Your task to perform on an android device: What's the weather? Image 0: 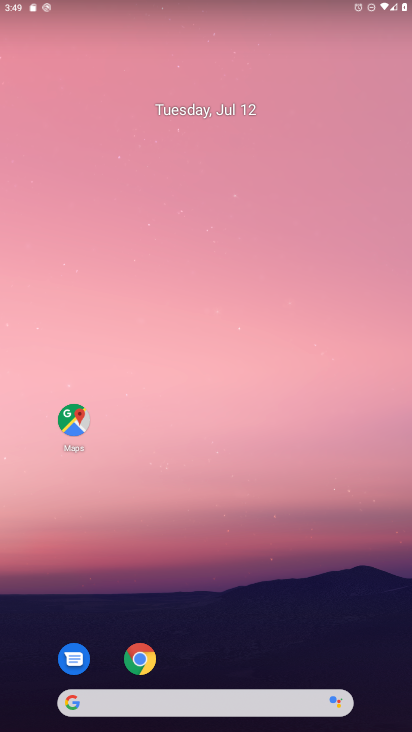
Step 0: click (185, 705)
Your task to perform on an android device: What's the weather? Image 1: 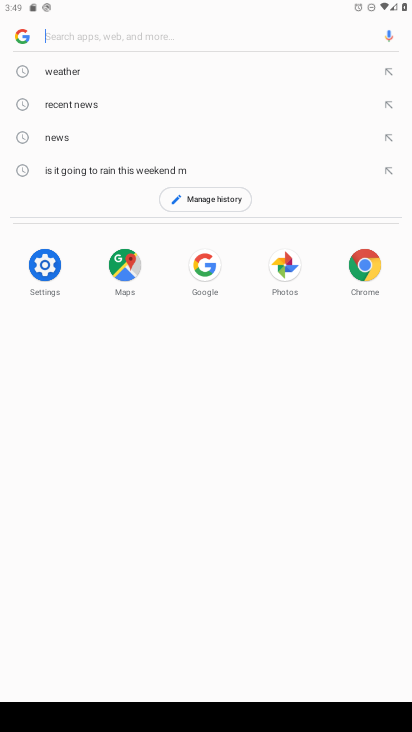
Step 1: click (46, 72)
Your task to perform on an android device: What's the weather? Image 2: 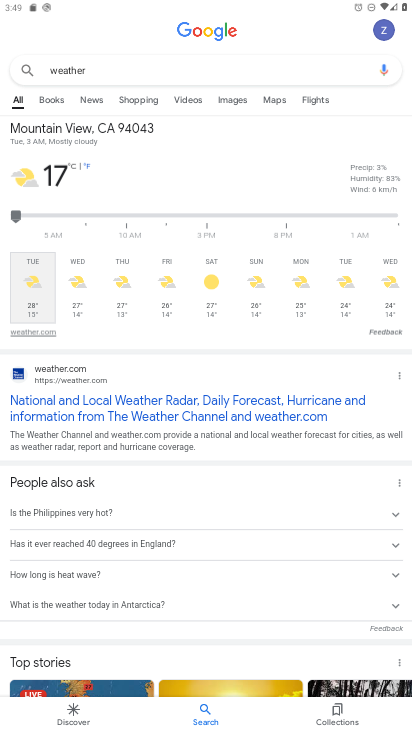
Step 2: task complete